Your task to perform on an android device: Open Google Maps Image 0: 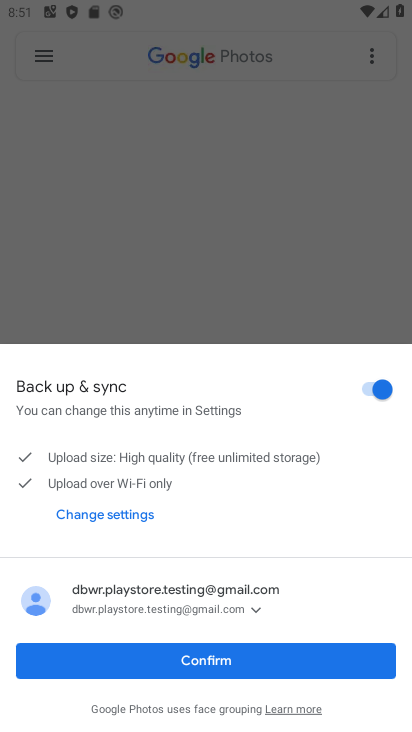
Step 0: press home button
Your task to perform on an android device: Open Google Maps Image 1: 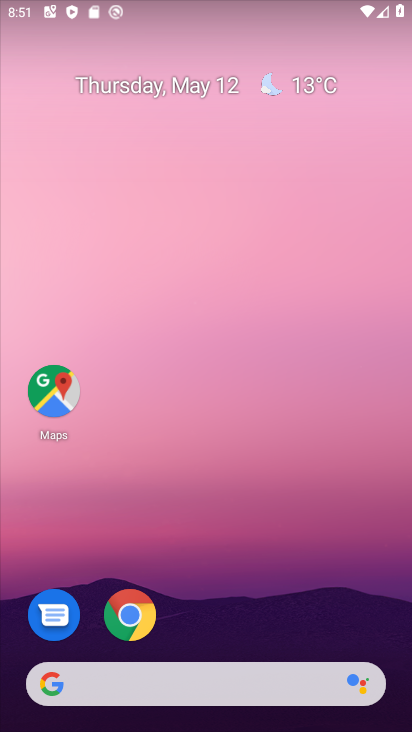
Step 1: click (35, 385)
Your task to perform on an android device: Open Google Maps Image 2: 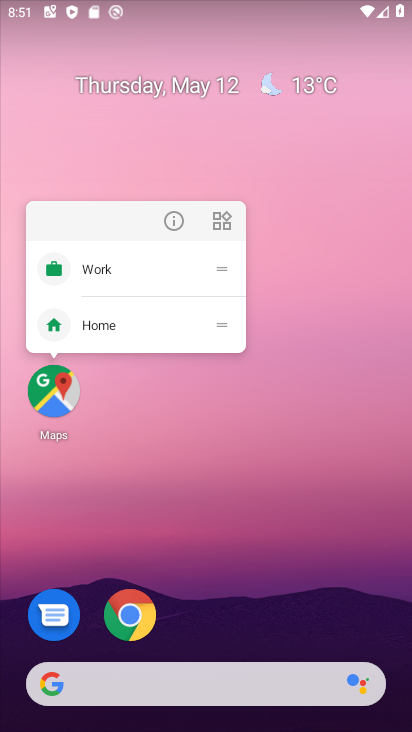
Step 2: click (48, 366)
Your task to perform on an android device: Open Google Maps Image 3: 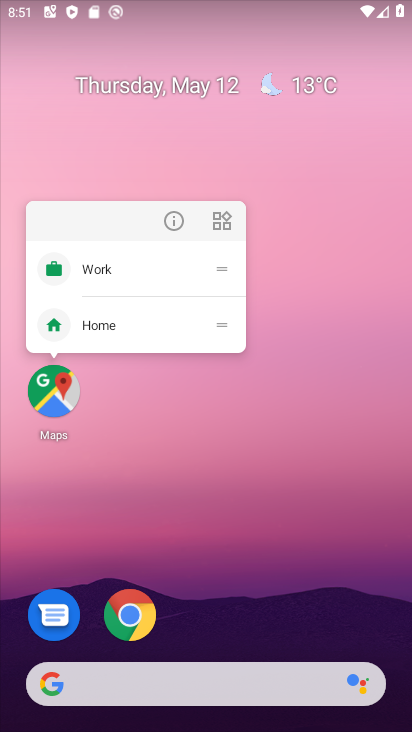
Step 3: click (48, 396)
Your task to perform on an android device: Open Google Maps Image 4: 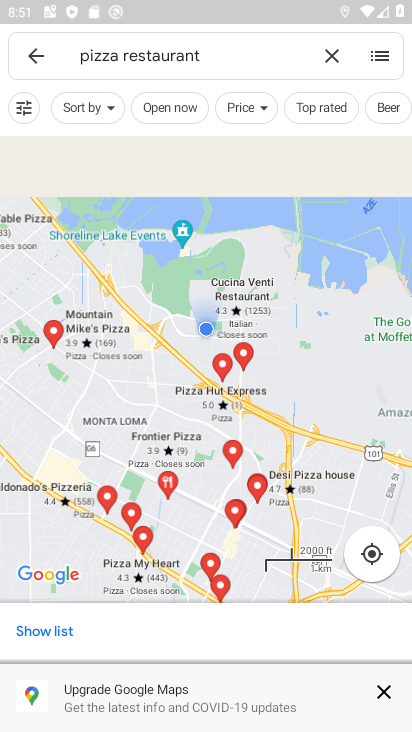
Step 4: task complete